Your task to perform on an android device: Where can I buy a nice beach hat? Image 0: 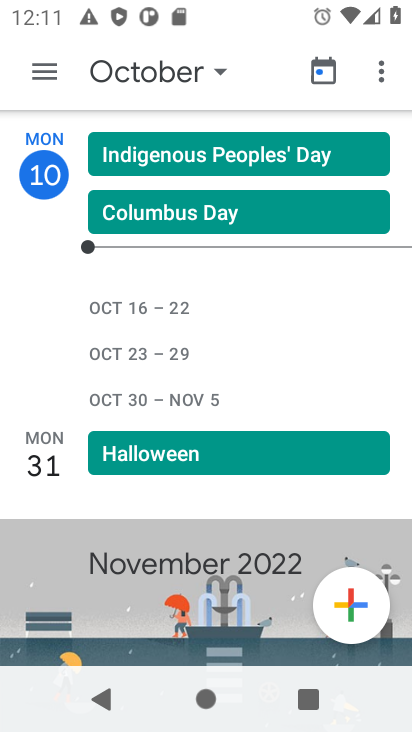
Step 0: press home button
Your task to perform on an android device: Where can I buy a nice beach hat? Image 1: 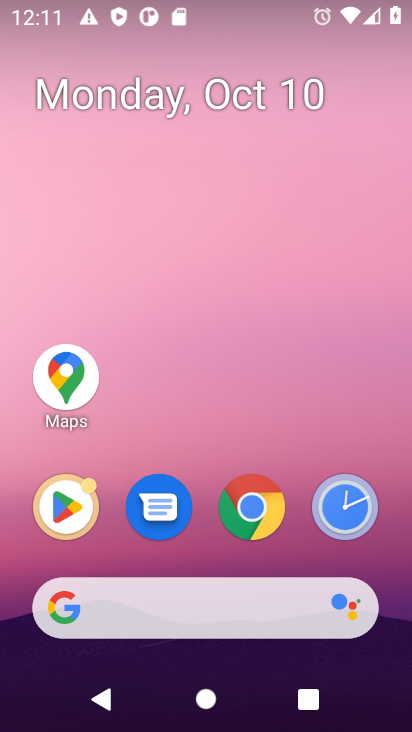
Step 1: click (235, 620)
Your task to perform on an android device: Where can I buy a nice beach hat? Image 2: 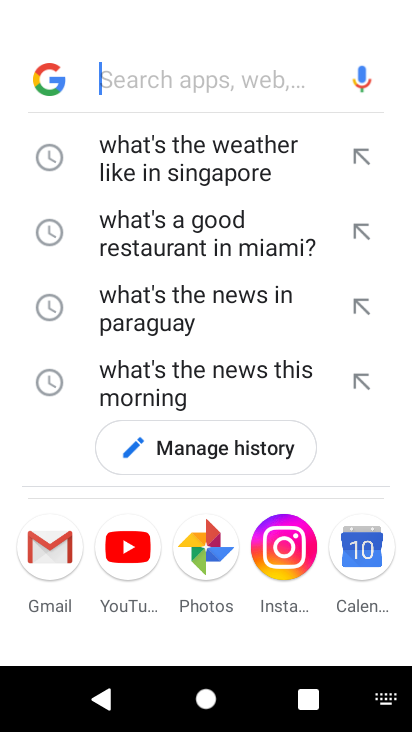
Step 2: type "Where can I buy a nice beach hat?"
Your task to perform on an android device: Where can I buy a nice beach hat? Image 3: 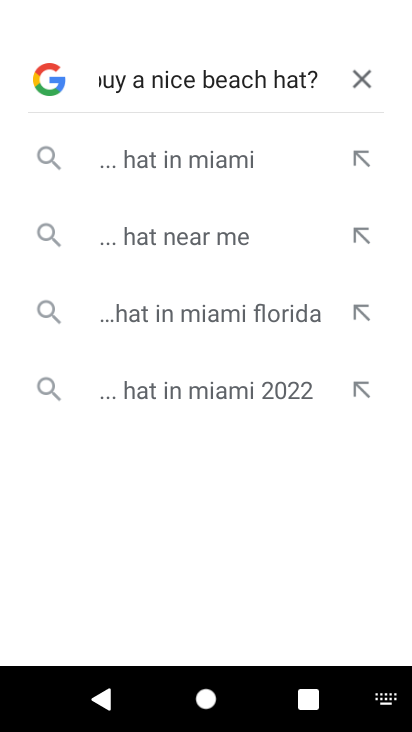
Step 3: press enter
Your task to perform on an android device: Where can I buy a nice beach hat? Image 4: 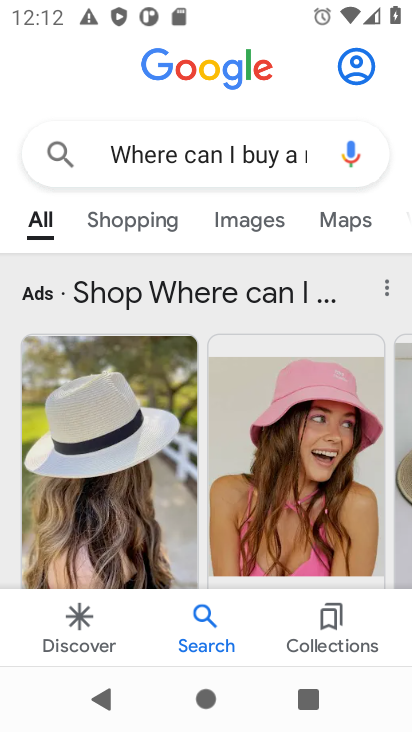
Step 4: task complete